Your task to perform on an android device: Open the calendar app, open the side menu, and click the "Day" option Image 0: 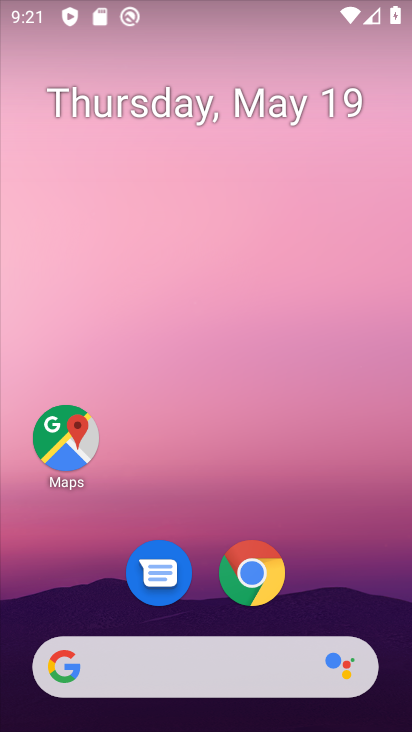
Step 0: drag from (201, 607) to (211, 250)
Your task to perform on an android device: Open the calendar app, open the side menu, and click the "Day" option Image 1: 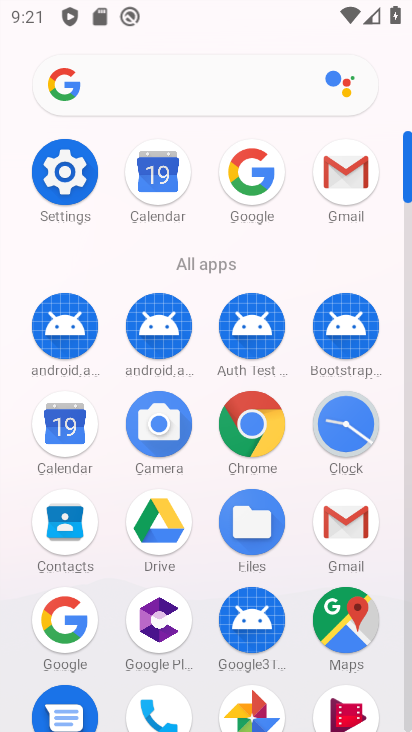
Step 1: click (79, 430)
Your task to perform on an android device: Open the calendar app, open the side menu, and click the "Day" option Image 2: 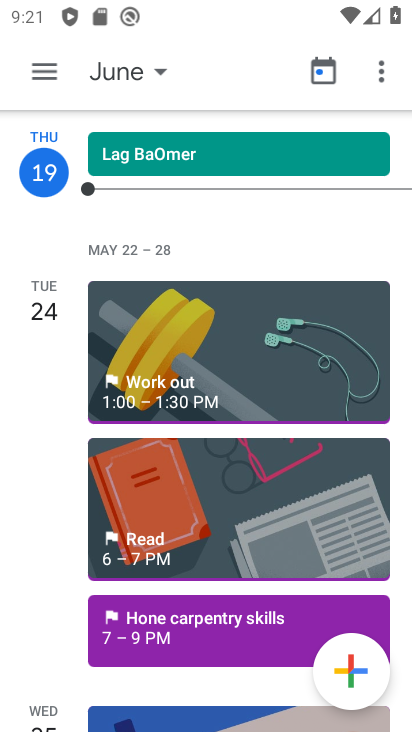
Step 2: click (47, 83)
Your task to perform on an android device: Open the calendar app, open the side menu, and click the "Day" option Image 3: 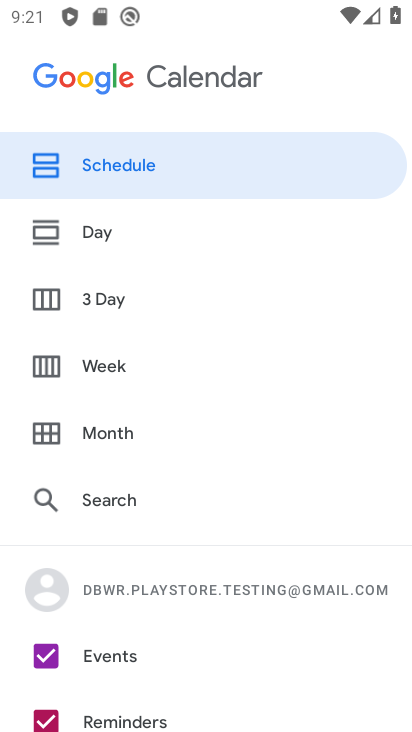
Step 3: click (128, 226)
Your task to perform on an android device: Open the calendar app, open the side menu, and click the "Day" option Image 4: 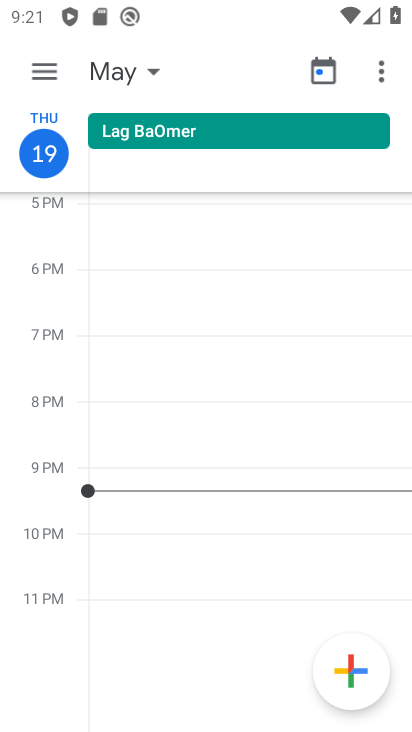
Step 4: task complete